Your task to perform on an android device: Search for a runner rug on Crate & Barrel. Image 0: 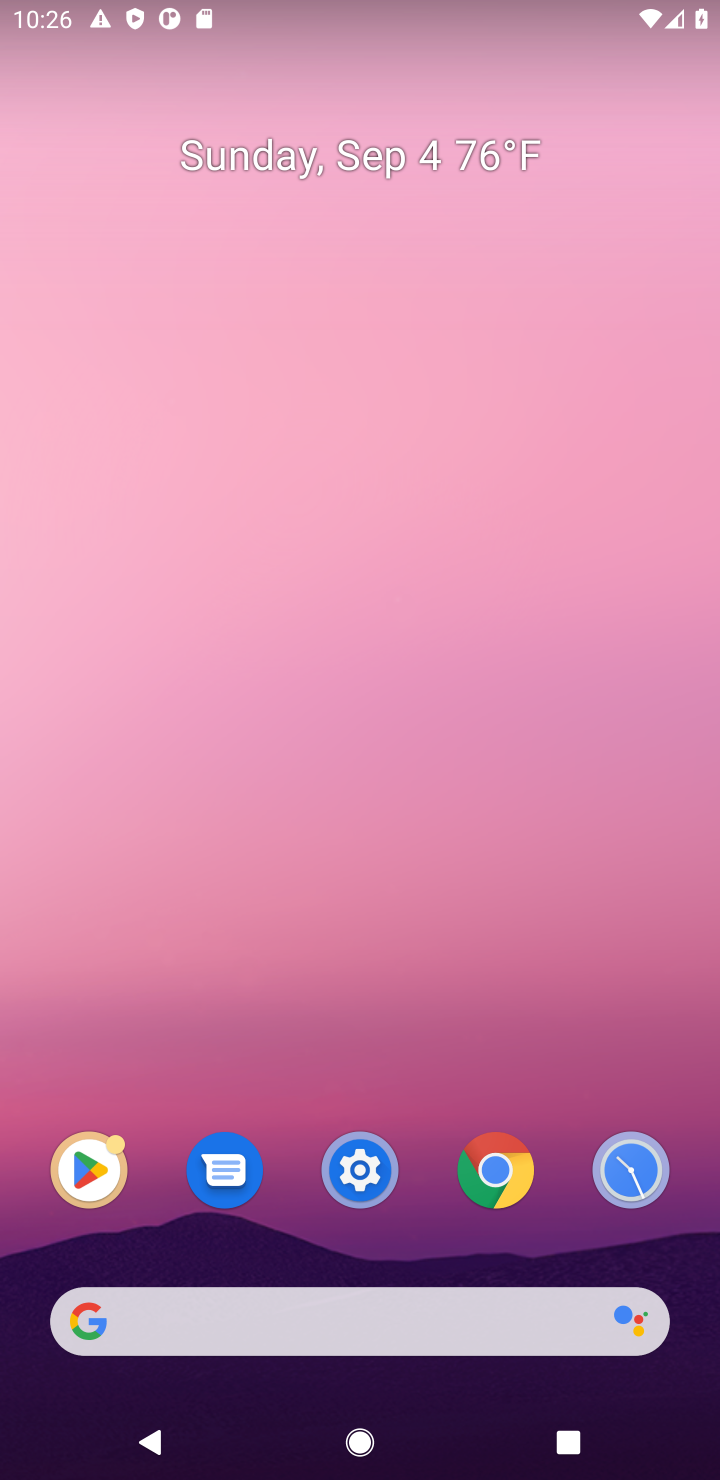
Step 0: click (497, 1307)
Your task to perform on an android device: Search for a runner rug on Crate & Barrel. Image 1: 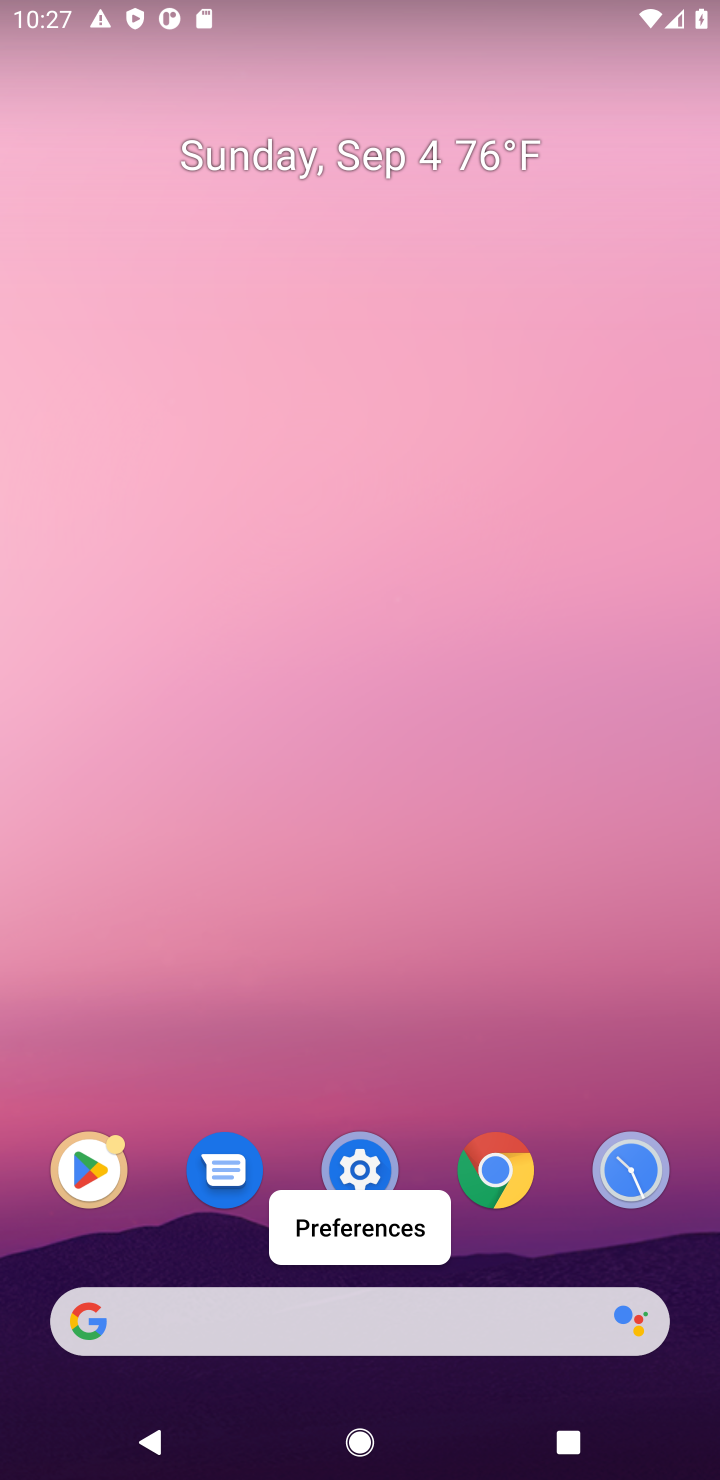
Step 1: click (435, 1361)
Your task to perform on an android device: Search for a runner rug on Crate & Barrel. Image 2: 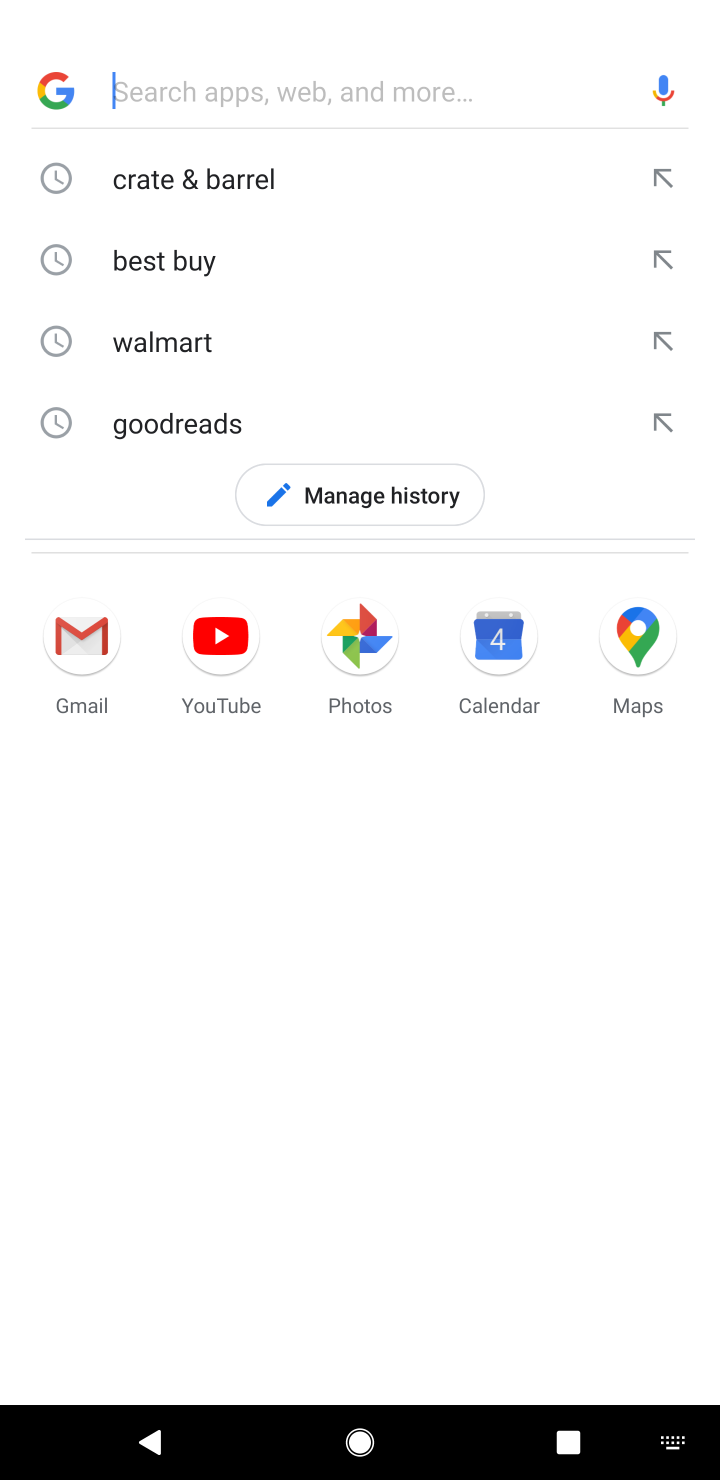
Step 2: click (268, 189)
Your task to perform on an android device: Search for a runner rug on Crate & Barrel. Image 3: 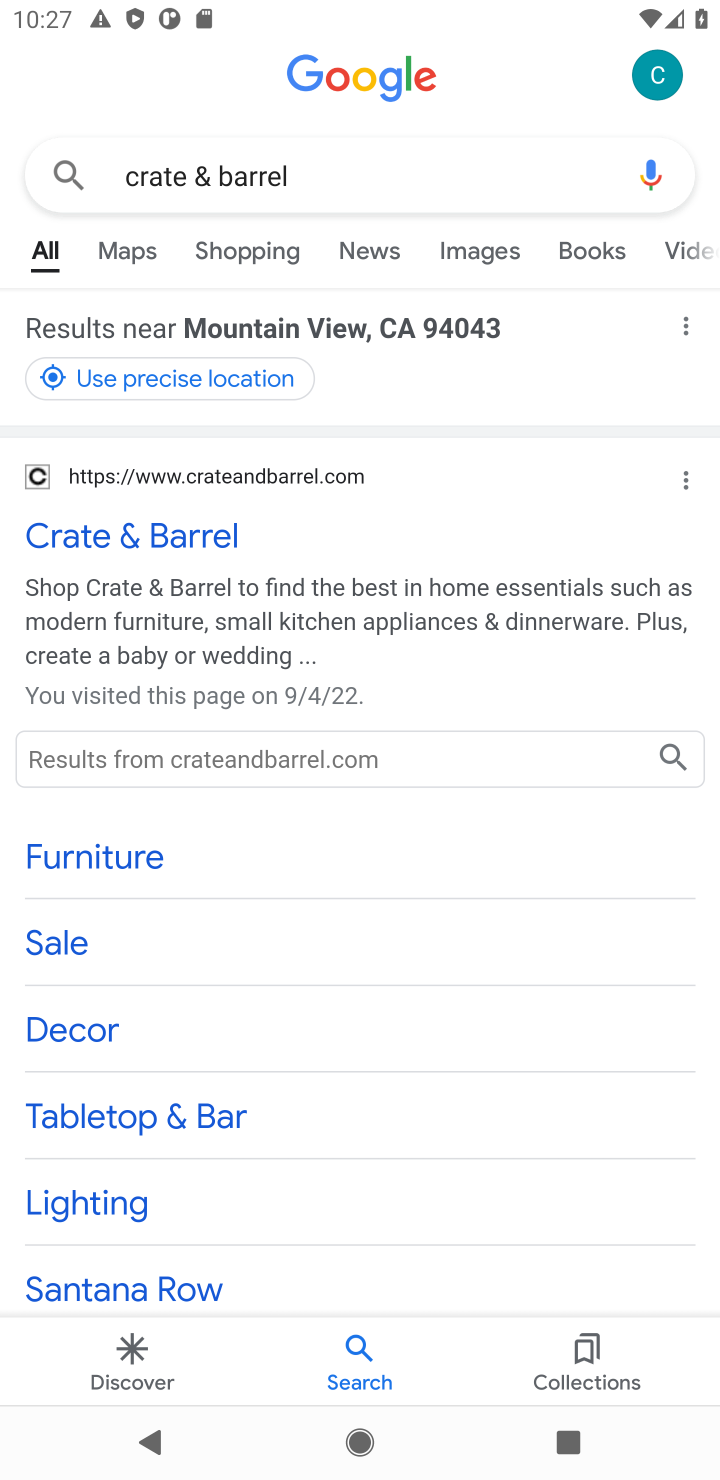
Step 3: click (184, 500)
Your task to perform on an android device: Search for a runner rug on Crate & Barrel. Image 4: 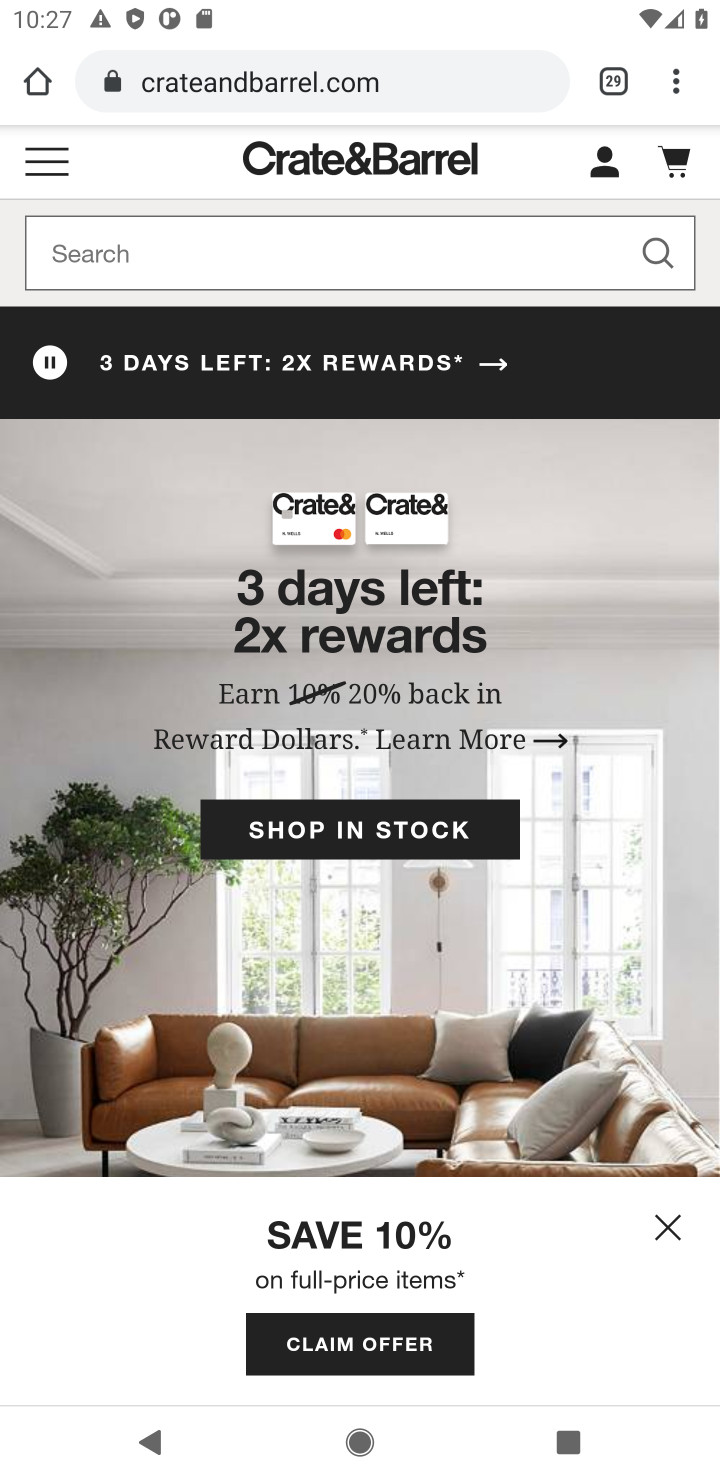
Step 4: click (264, 272)
Your task to perform on an android device: Search for a runner rug on Crate & Barrel. Image 5: 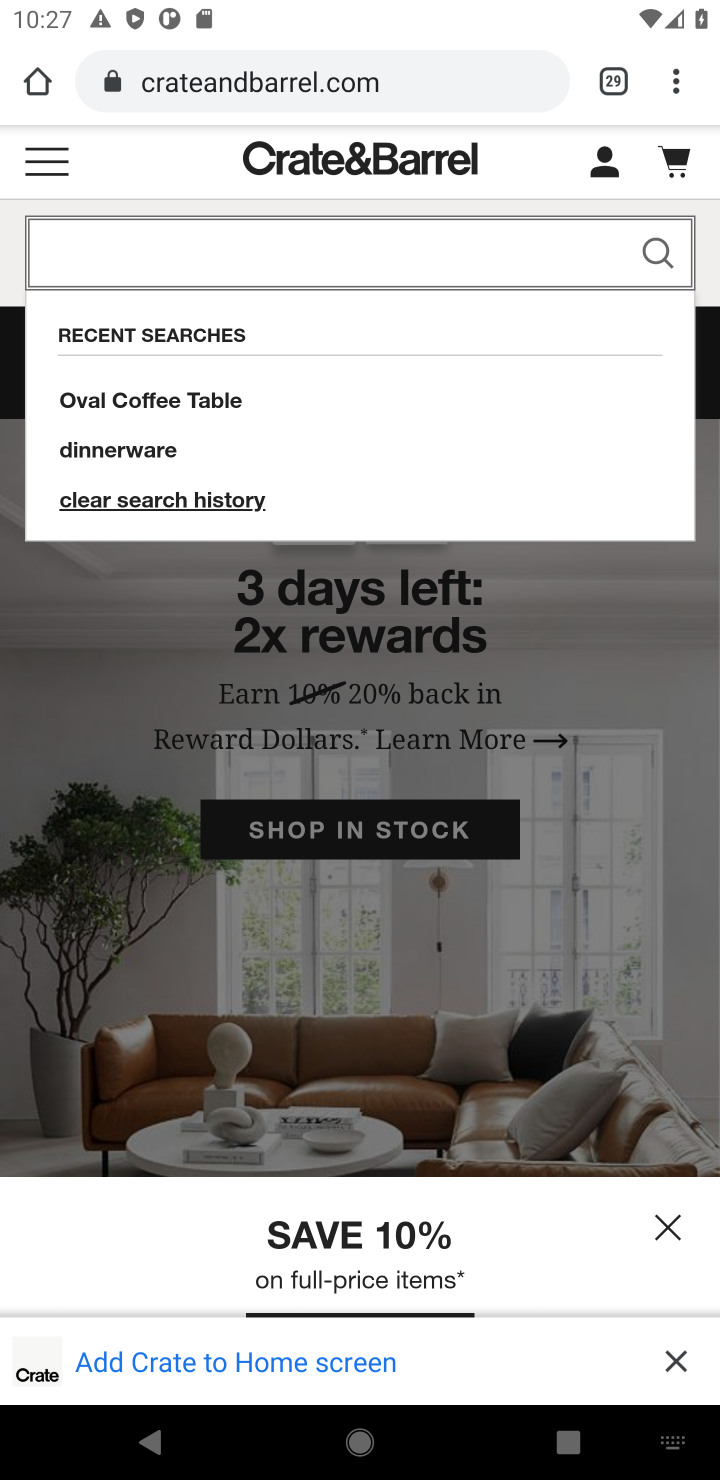
Step 5: type "runner rug "
Your task to perform on an android device: Search for a runner rug on Crate & Barrel. Image 6: 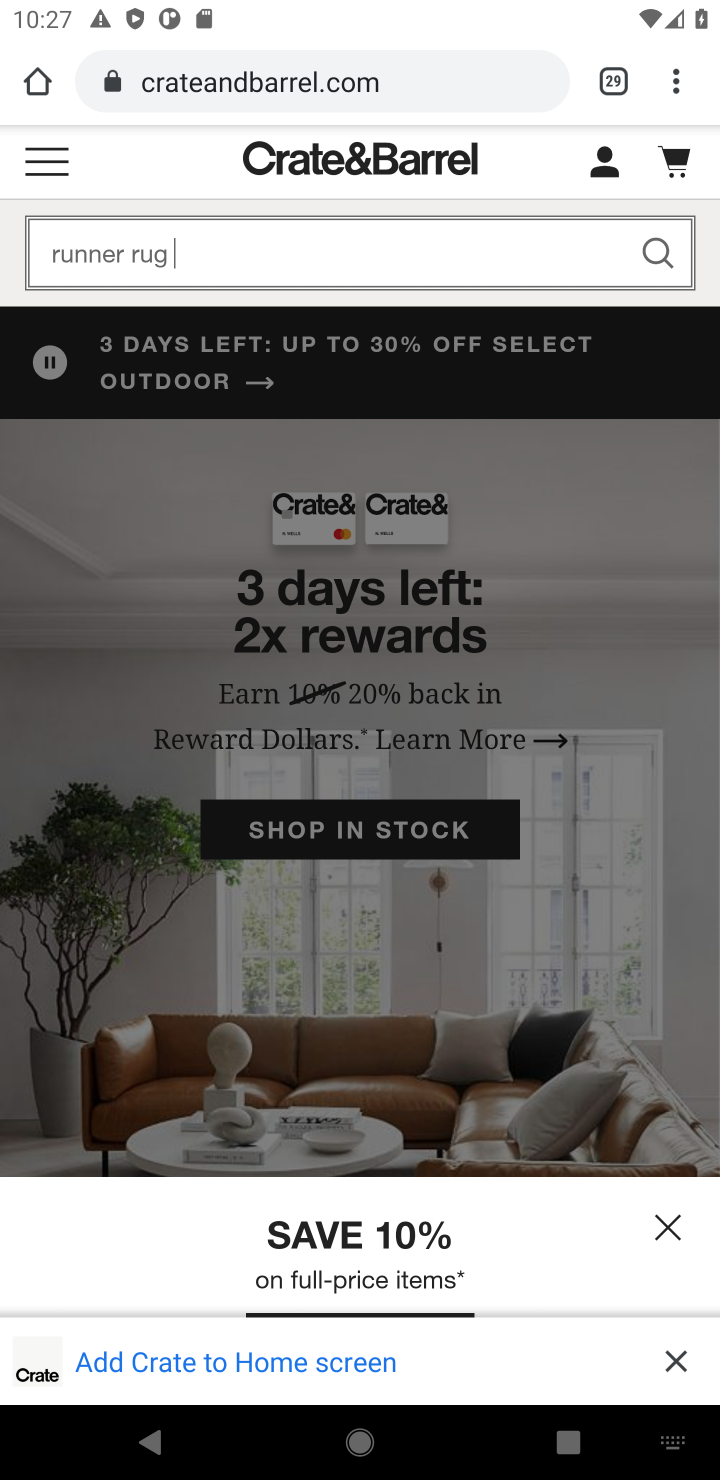
Step 6: type ""
Your task to perform on an android device: Search for a runner rug on Crate & Barrel. Image 7: 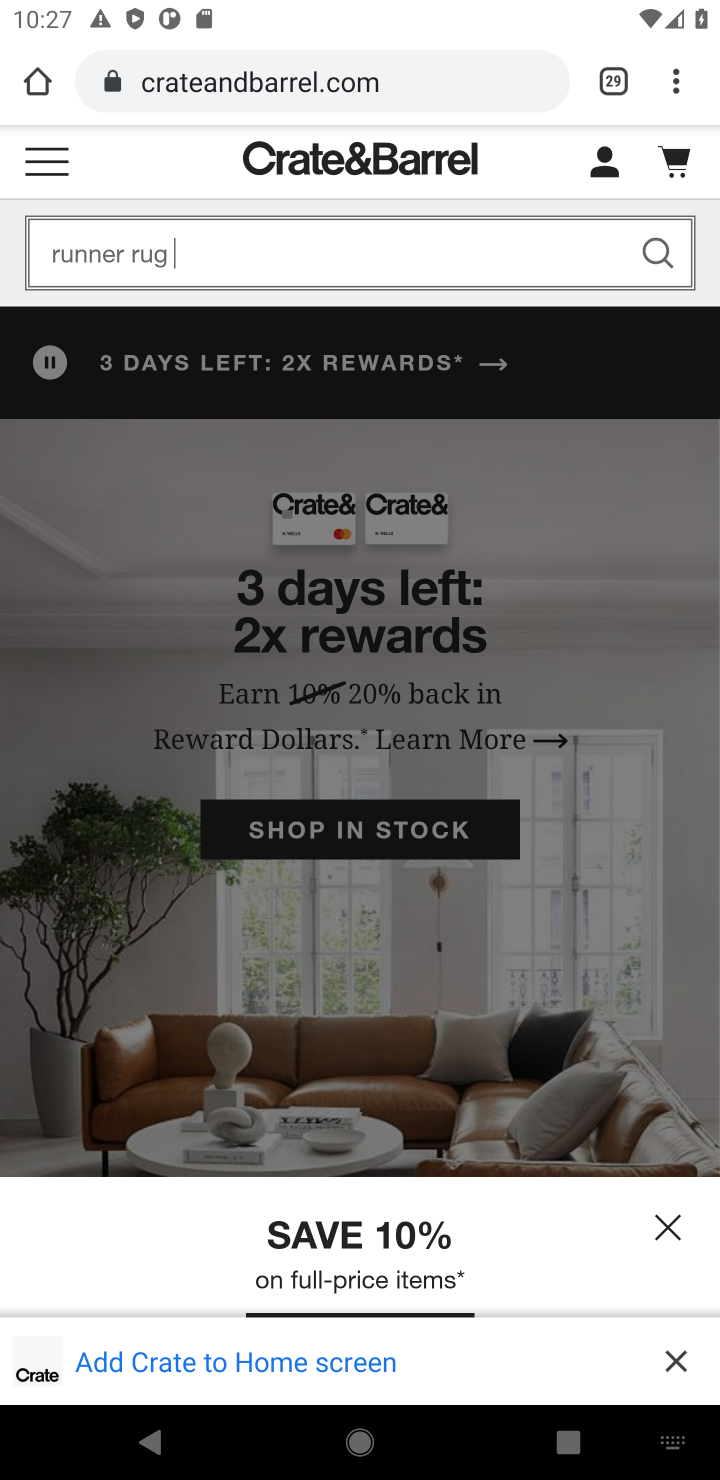
Step 7: click (669, 245)
Your task to perform on an android device: Search for a runner rug on Crate & Barrel. Image 8: 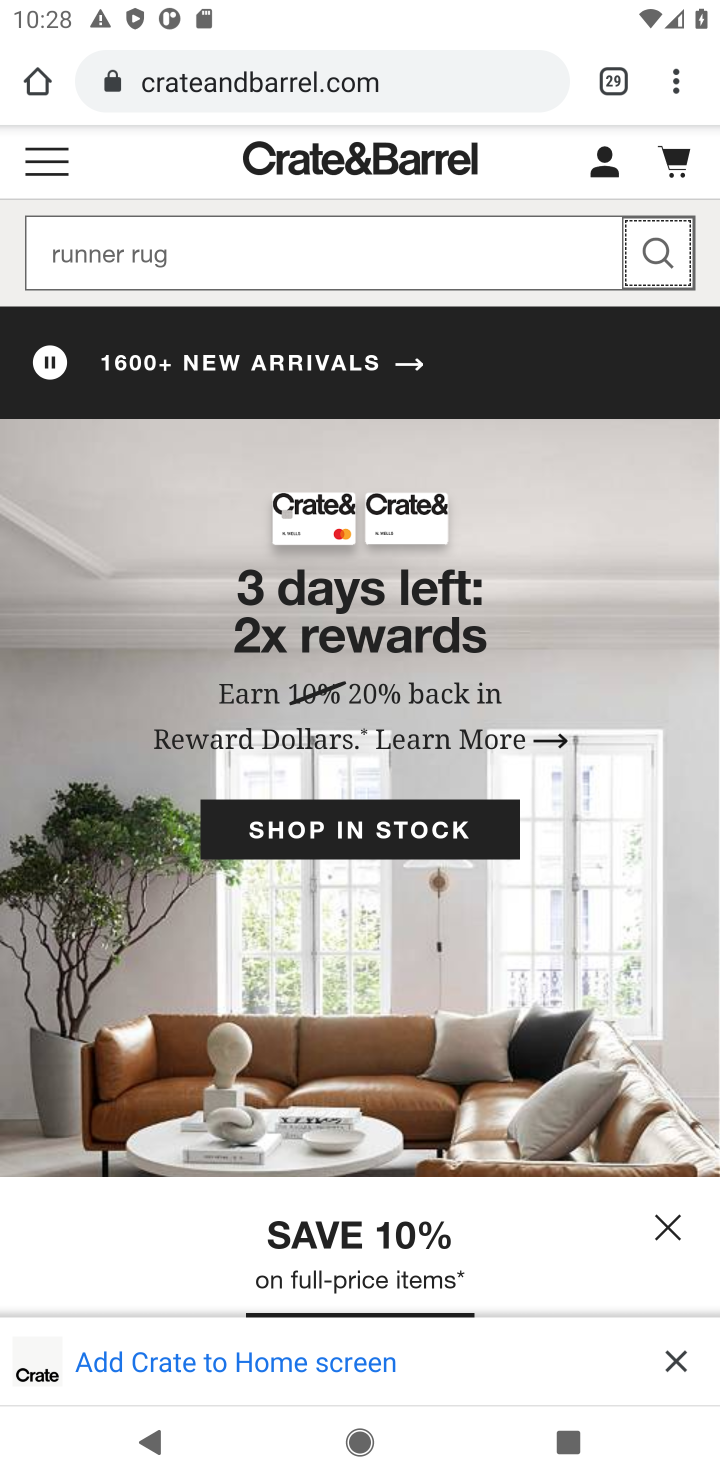
Step 8: task complete